Your task to perform on an android device: Open calendar and show me the fourth week of next month Image 0: 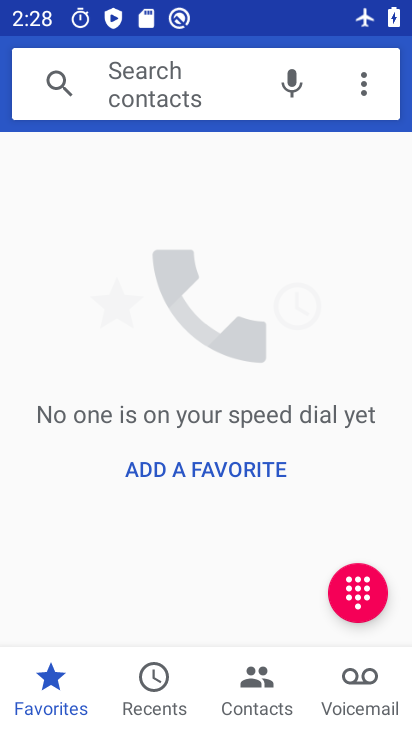
Step 0: press home button
Your task to perform on an android device: Open calendar and show me the fourth week of next month Image 1: 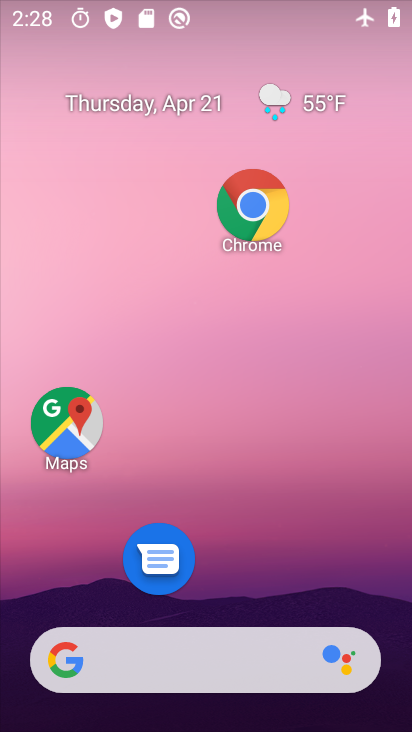
Step 1: drag from (214, 602) to (368, 27)
Your task to perform on an android device: Open calendar and show me the fourth week of next month Image 2: 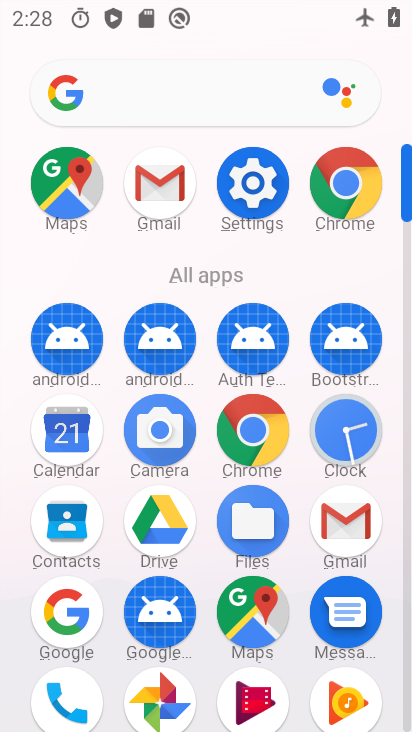
Step 2: click (71, 430)
Your task to perform on an android device: Open calendar and show me the fourth week of next month Image 3: 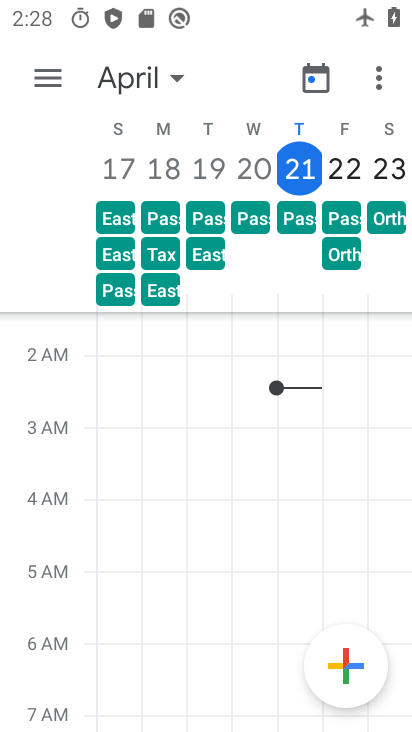
Step 3: task complete